Your task to perform on an android device: toggle notification dots Image 0: 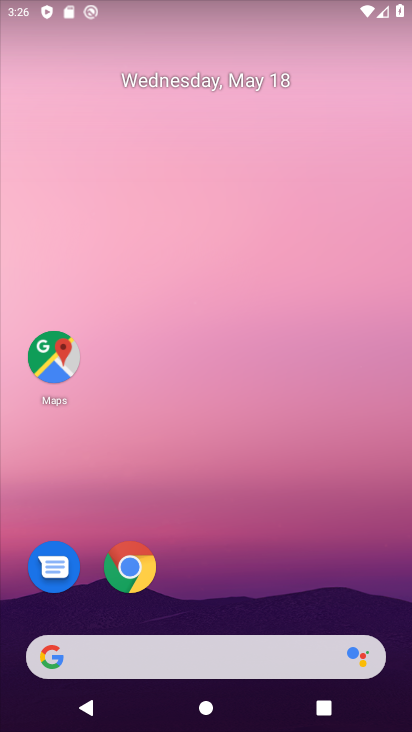
Step 0: drag from (190, 558) to (266, 115)
Your task to perform on an android device: toggle notification dots Image 1: 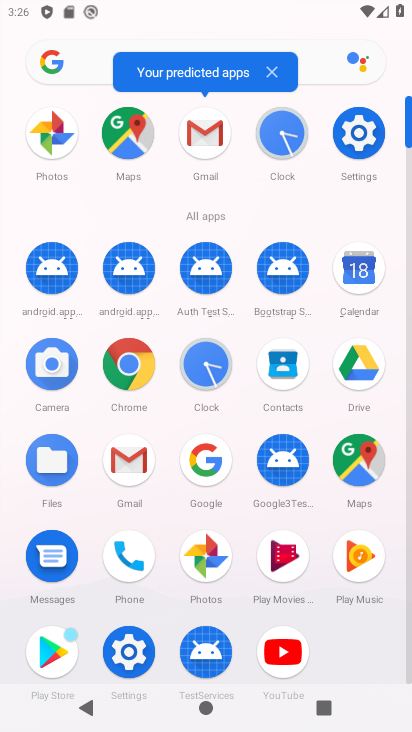
Step 1: click (359, 132)
Your task to perform on an android device: toggle notification dots Image 2: 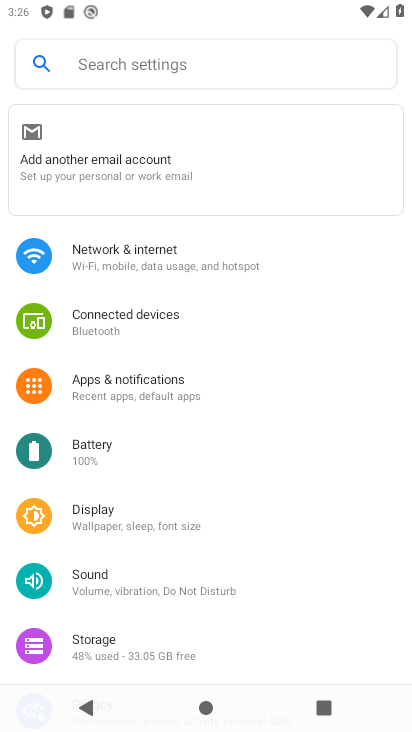
Step 2: drag from (222, 646) to (272, 340)
Your task to perform on an android device: toggle notification dots Image 3: 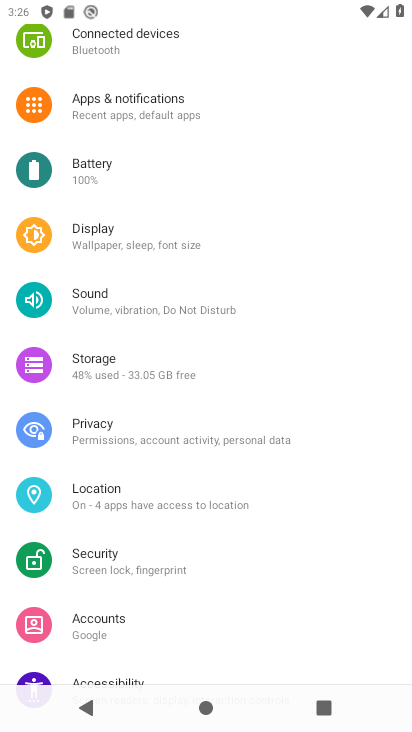
Step 3: click (139, 117)
Your task to perform on an android device: toggle notification dots Image 4: 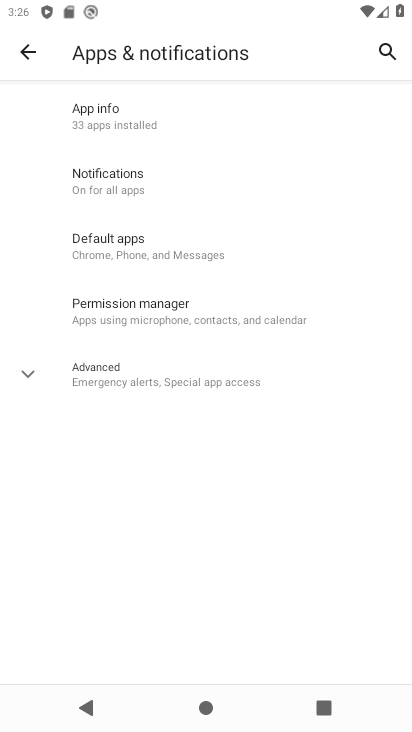
Step 4: click (117, 345)
Your task to perform on an android device: toggle notification dots Image 5: 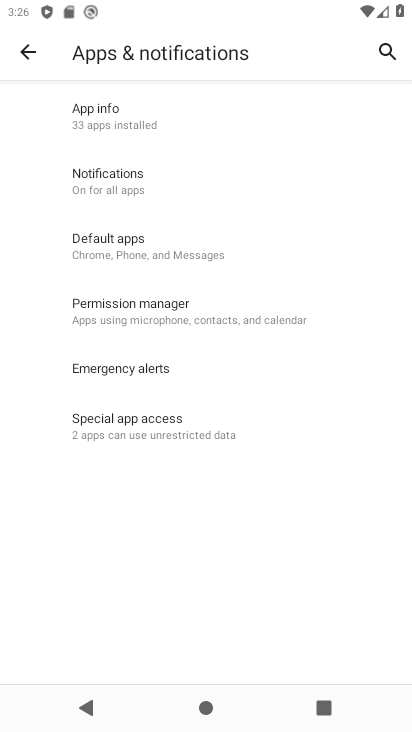
Step 5: drag from (279, 423) to (306, 181)
Your task to perform on an android device: toggle notification dots Image 6: 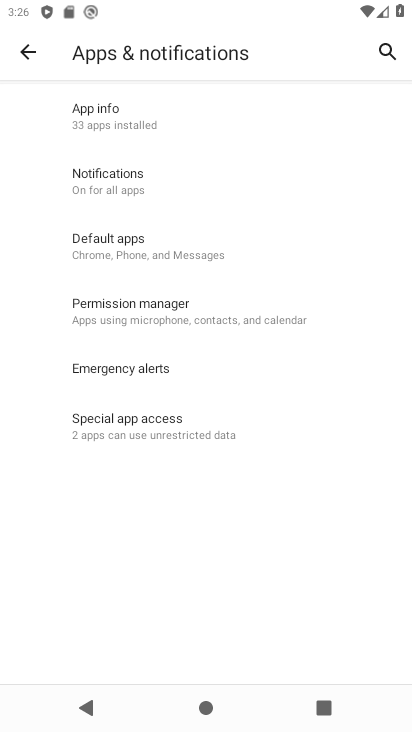
Step 6: click (113, 180)
Your task to perform on an android device: toggle notification dots Image 7: 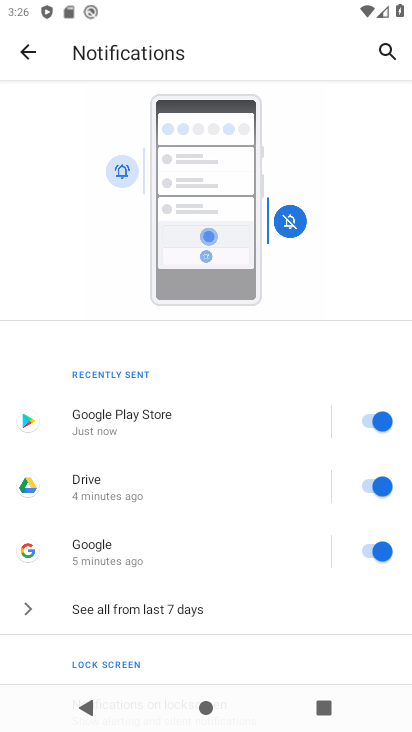
Step 7: drag from (271, 534) to (309, 50)
Your task to perform on an android device: toggle notification dots Image 8: 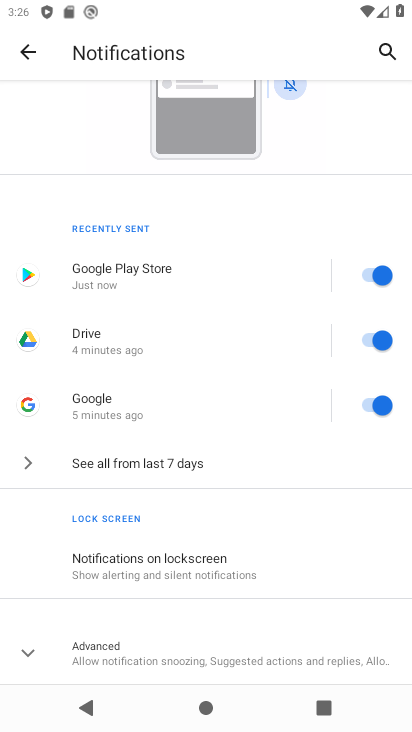
Step 8: click (159, 638)
Your task to perform on an android device: toggle notification dots Image 9: 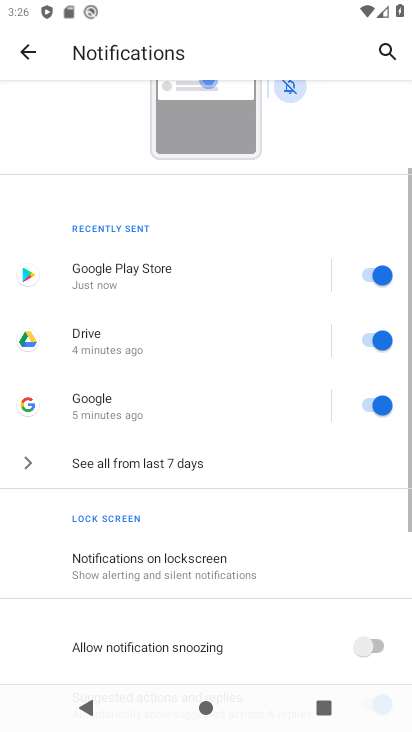
Step 9: click (162, 651)
Your task to perform on an android device: toggle notification dots Image 10: 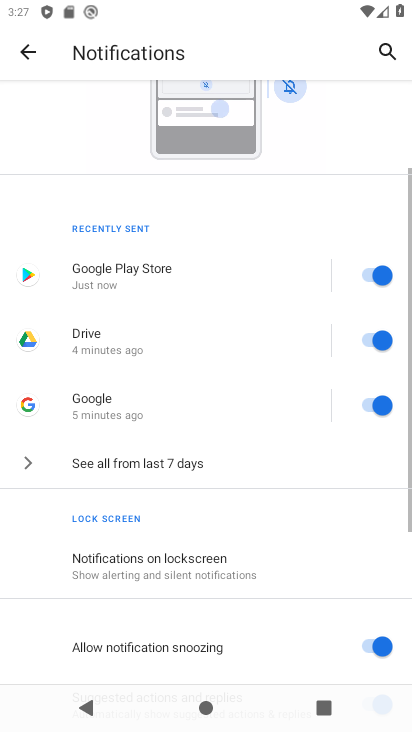
Step 10: click (274, 646)
Your task to perform on an android device: toggle notification dots Image 11: 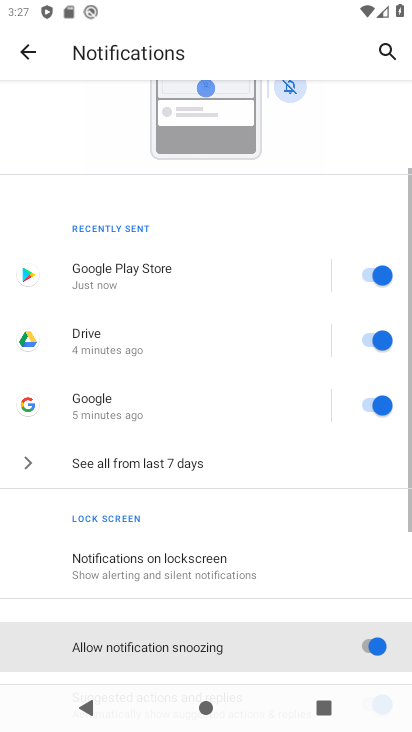
Step 11: drag from (289, 616) to (348, 293)
Your task to perform on an android device: toggle notification dots Image 12: 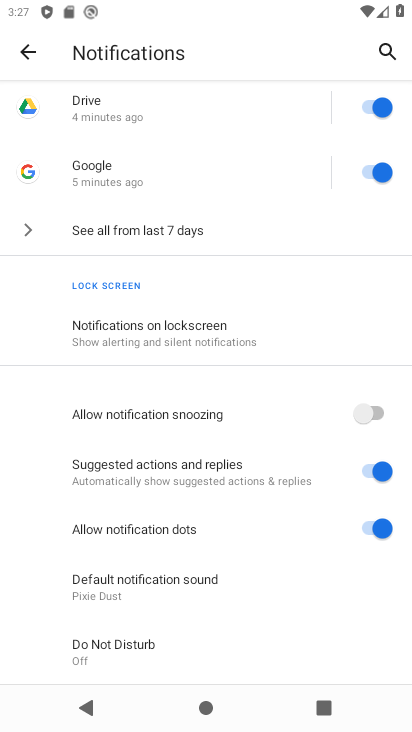
Step 12: click (384, 529)
Your task to perform on an android device: toggle notification dots Image 13: 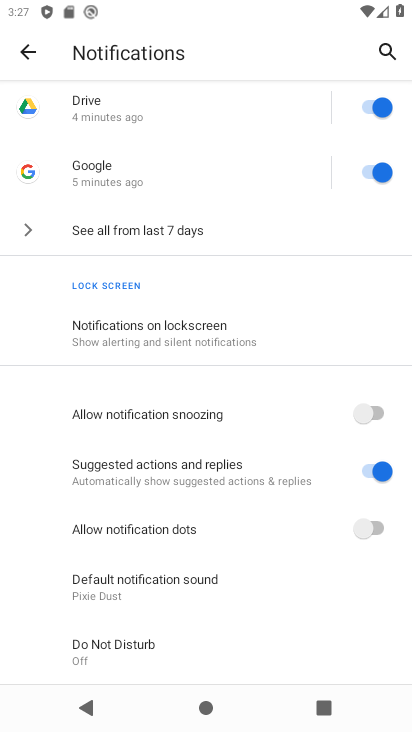
Step 13: task complete